Your task to perform on an android device: Go to battery settings Image 0: 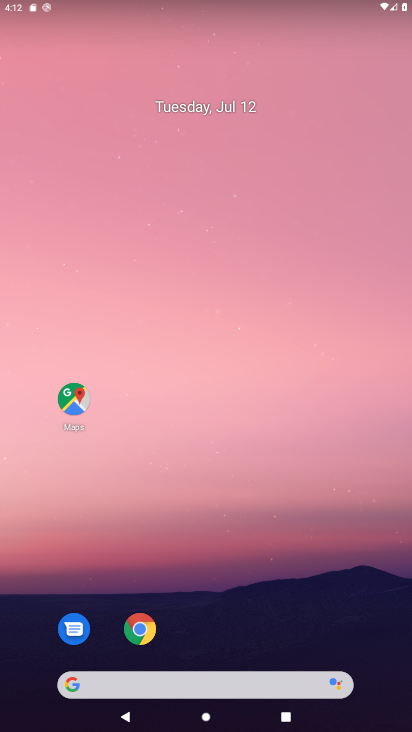
Step 0: drag from (207, 653) to (126, 39)
Your task to perform on an android device: Go to battery settings Image 1: 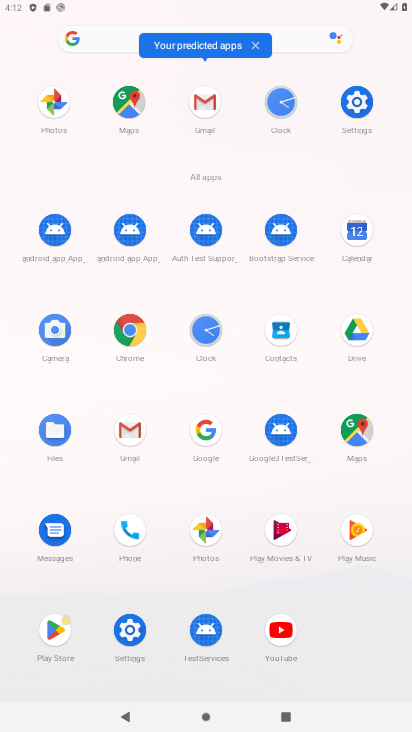
Step 1: click (136, 622)
Your task to perform on an android device: Go to battery settings Image 2: 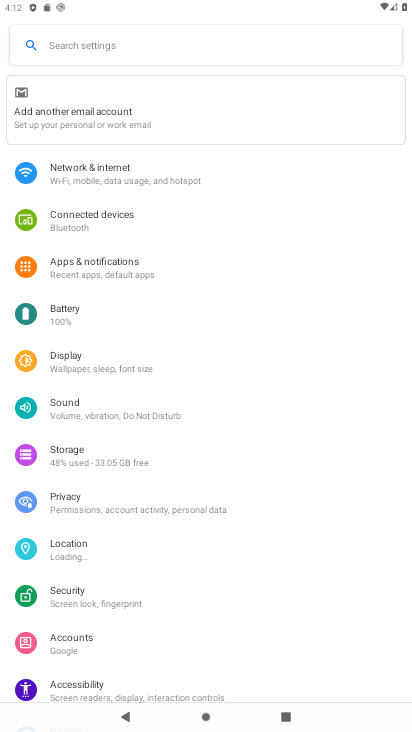
Step 2: click (57, 324)
Your task to perform on an android device: Go to battery settings Image 3: 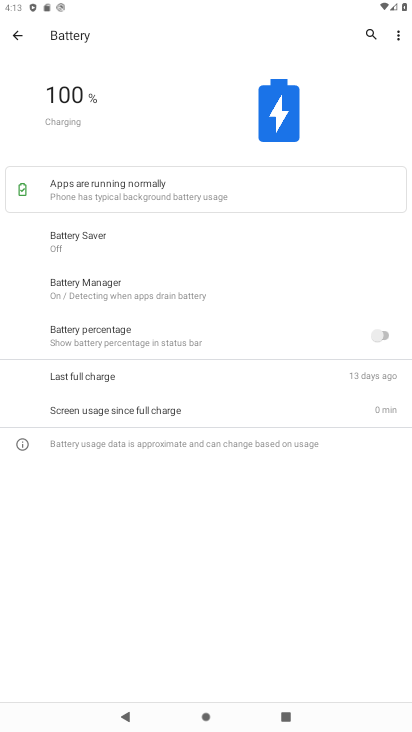
Step 3: task complete